Your task to perform on an android device: install app "Spotify: Music and Podcasts" Image 0: 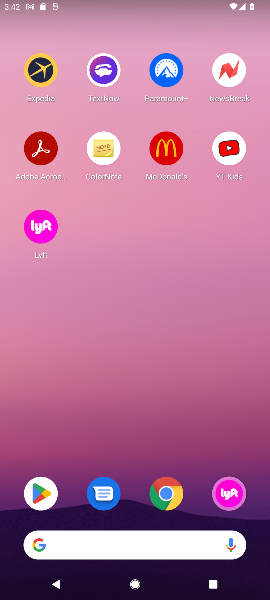
Step 0: click (42, 499)
Your task to perform on an android device: install app "Spotify: Music and Podcasts" Image 1: 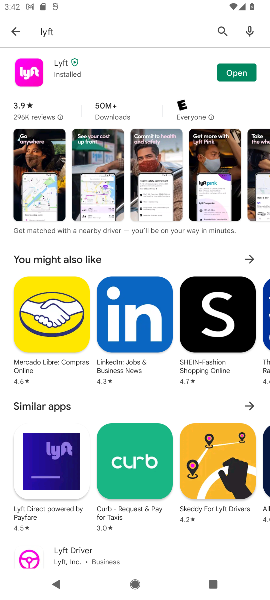
Step 1: click (224, 31)
Your task to perform on an android device: install app "Spotify: Music and Podcasts" Image 2: 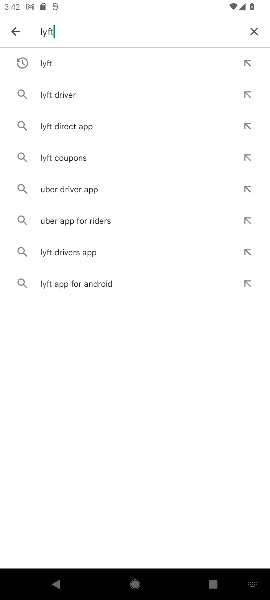
Step 2: click (255, 31)
Your task to perform on an android device: install app "Spotify: Music and Podcasts" Image 3: 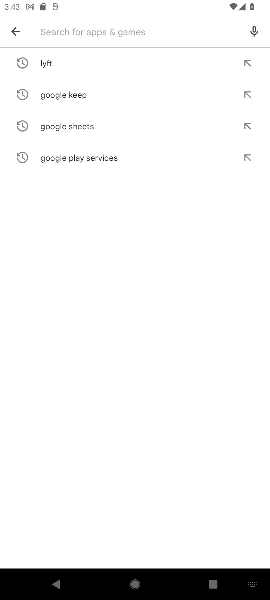
Step 3: click (97, 30)
Your task to perform on an android device: install app "Spotify: Music and Podcasts" Image 4: 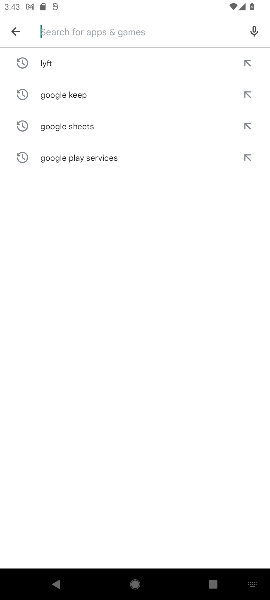
Step 4: type "spotify"
Your task to perform on an android device: install app "Spotify: Music and Podcasts" Image 5: 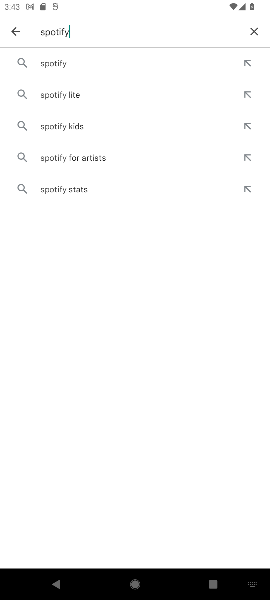
Step 5: click (59, 61)
Your task to perform on an android device: install app "Spotify: Music and Podcasts" Image 6: 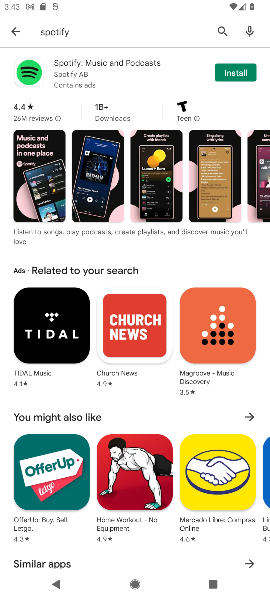
Step 6: click (233, 71)
Your task to perform on an android device: install app "Spotify: Music and Podcasts" Image 7: 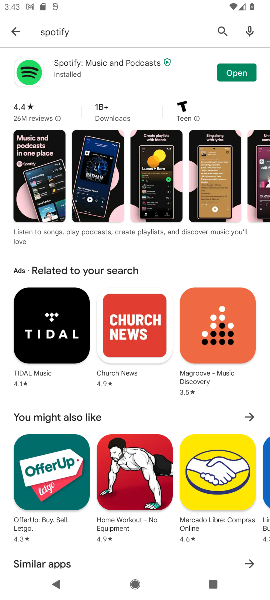
Step 7: task complete